Your task to perform on an android device: Empty the shopping cart on bestbuy.com. Add lg ultragear to the cart on bestbuy.com Image 0: 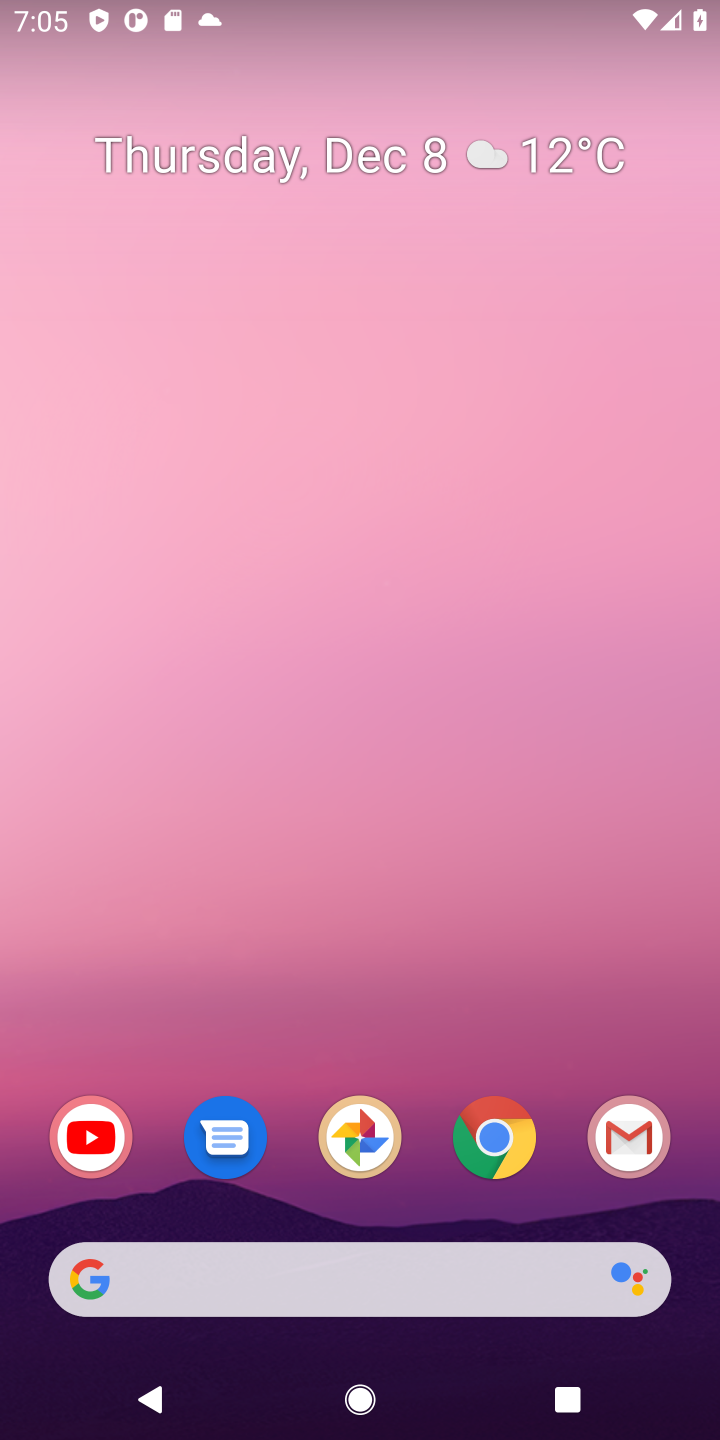
Step 0: click (513, 1140)
Your task to perform on an android device: Empty the shopping cart on bestbuy.com. Add lg ultragear to the cart on bestbuy.com Image 1: 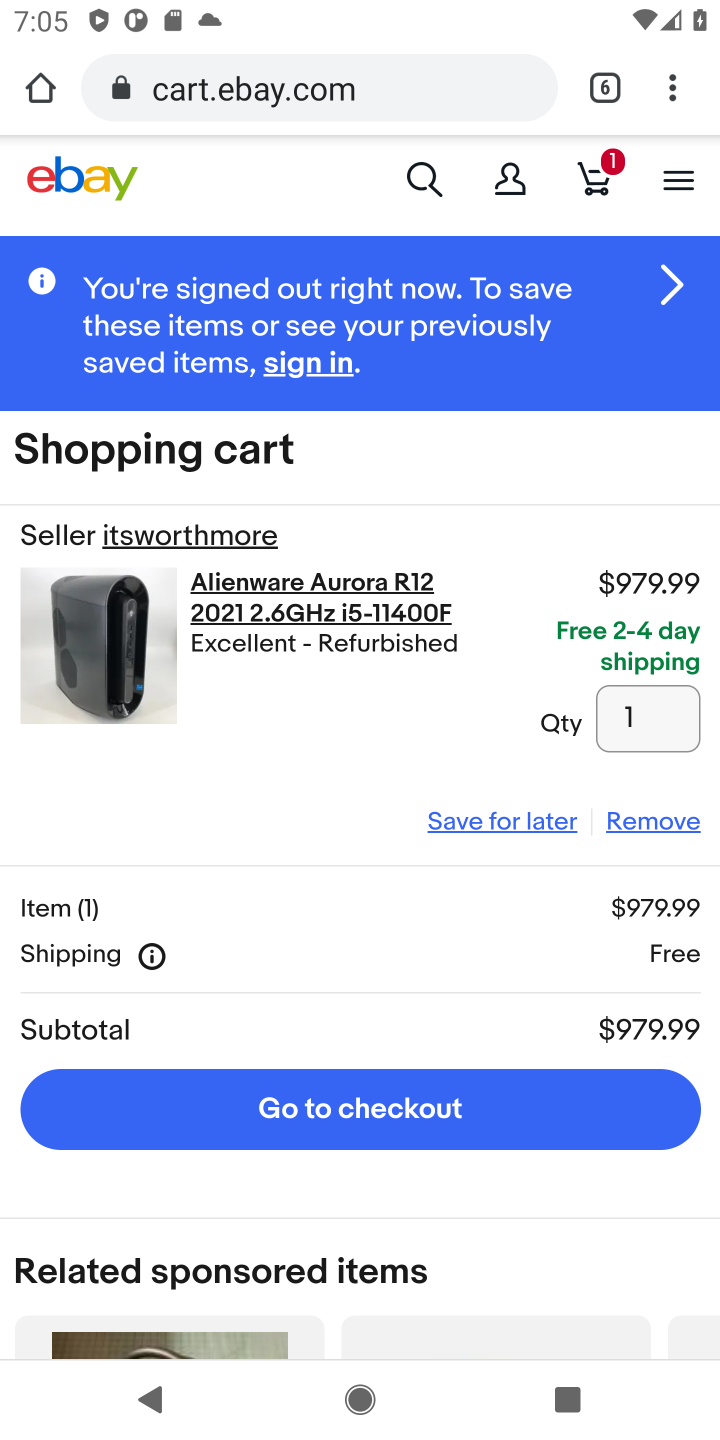
Step 1: click (599, 91)
Your task to perform on an android device: Empty the shopping cart on bestbuy.com. Add lg ultragear to the cart on bestbuy.com Image 2: 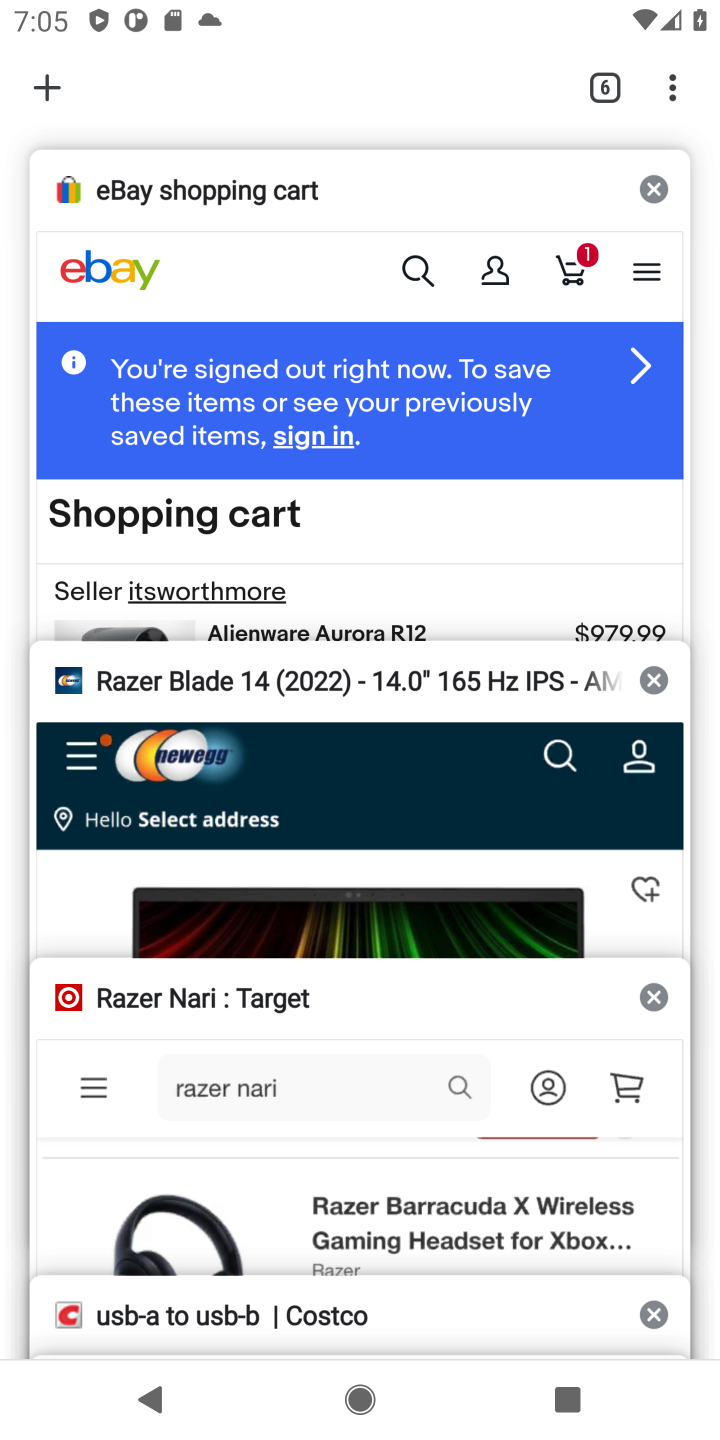
Step 2: drag from (221, 1310) to (294, 942)
Your task to perform on an android device: Empty the shopping cart on bestbuy.com. Add lg ultragear to the cart on bestbuy.com Image 3: 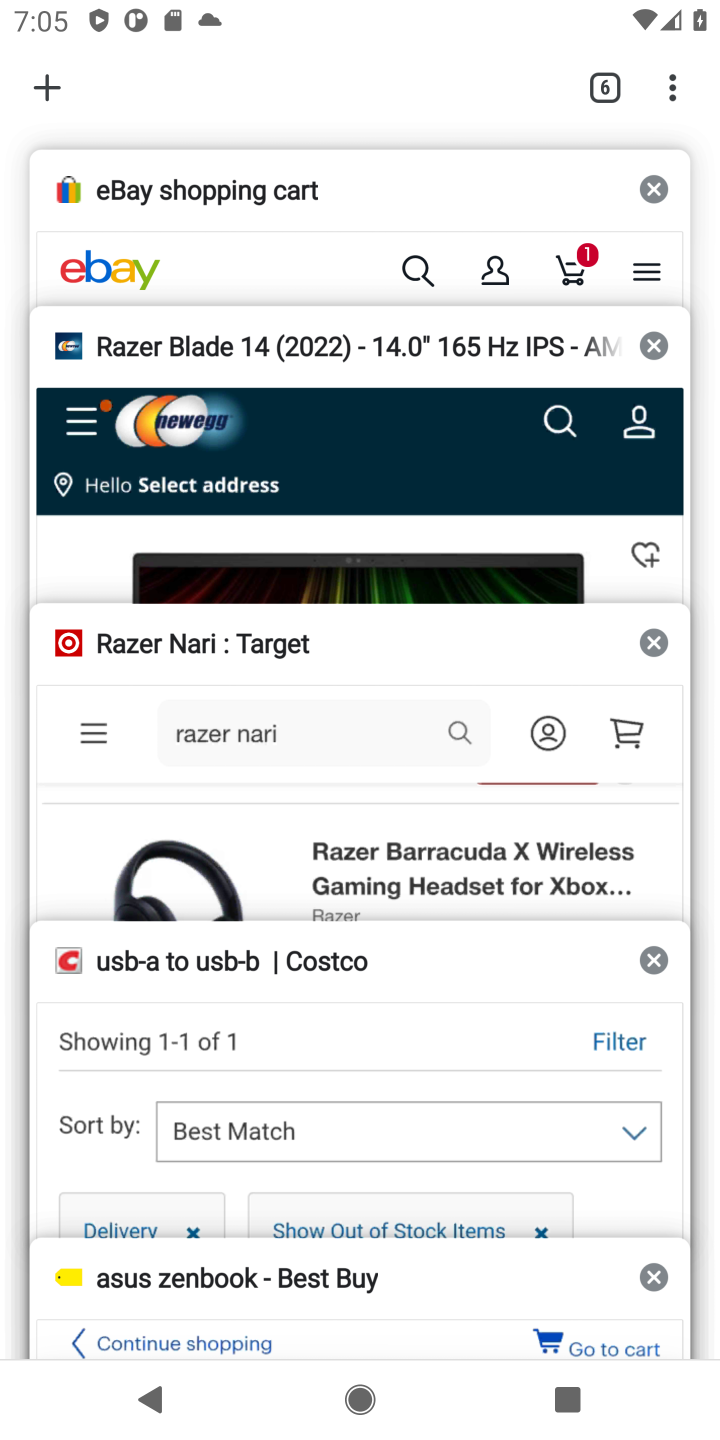
Step 3: click (206, 1273)
Your task to perform on an android device: Empty the shopping cart on bestbuy.com. Add lg ultragear to the cart on bestbuy.com Image 4: 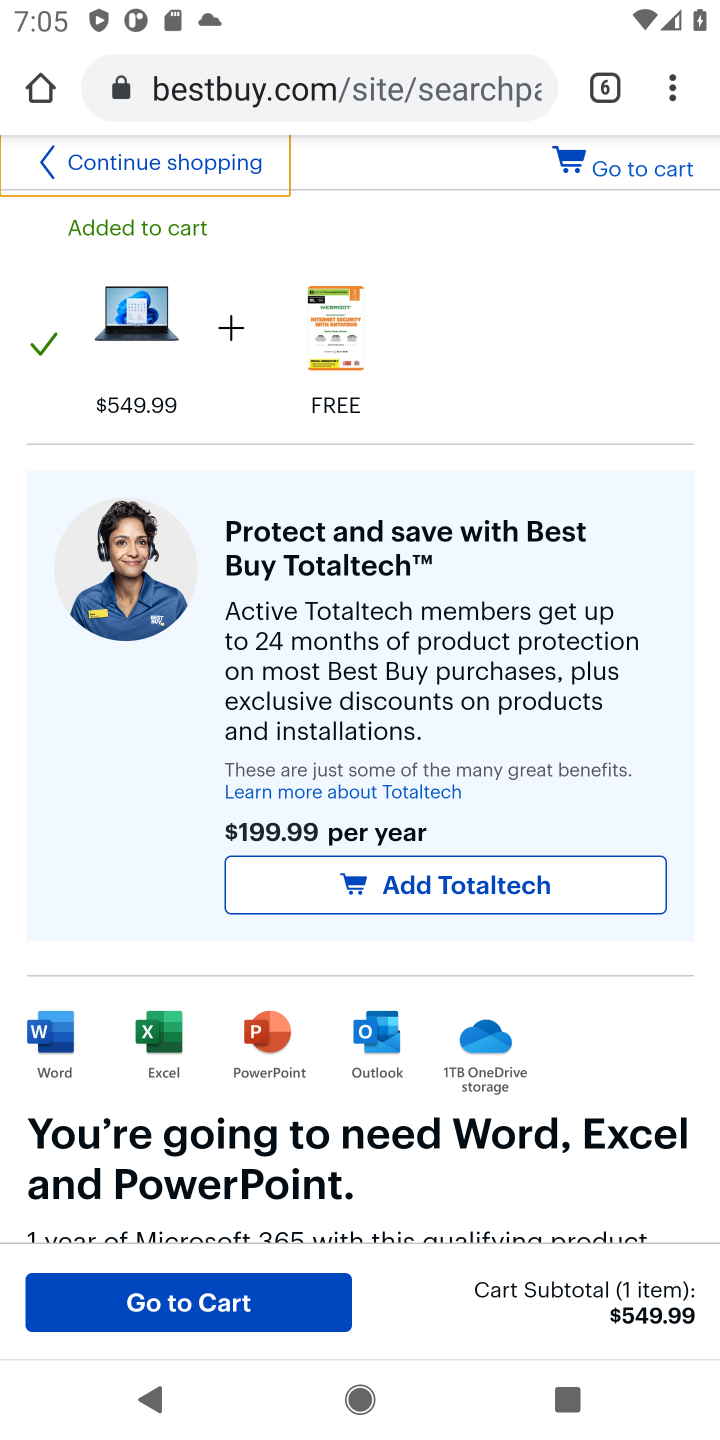
Step 4: click (124, 161)
Your task to perform on an android device: Empty the shopping cart on bestbuy.com. Add lg ultragear to the cart on bestbuy.com Image 5: 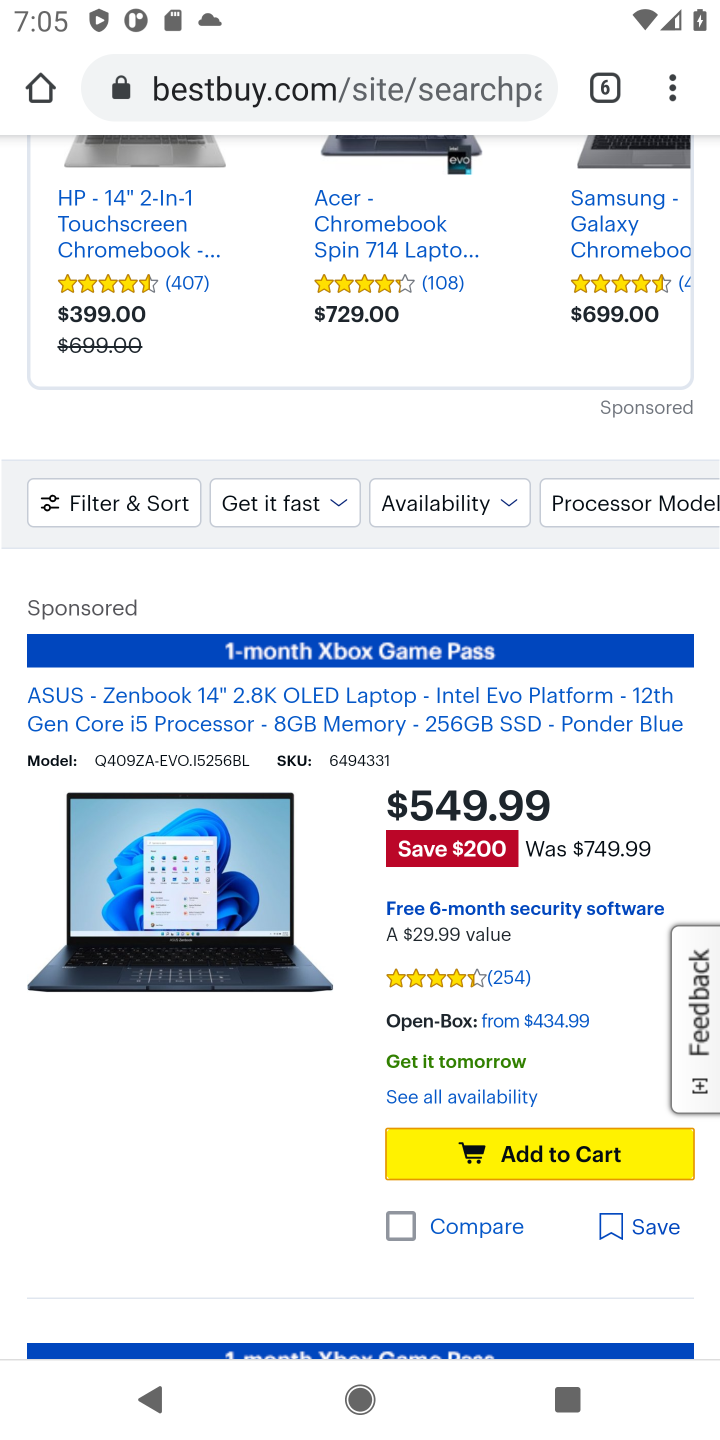
Step 5: drag from (477, 293) to (317, 818)
Your task to perform on an android device: Empty the shopping cart on bestbuy.com. Add lg ultragear to the cart on bestbuy.com Image 6: 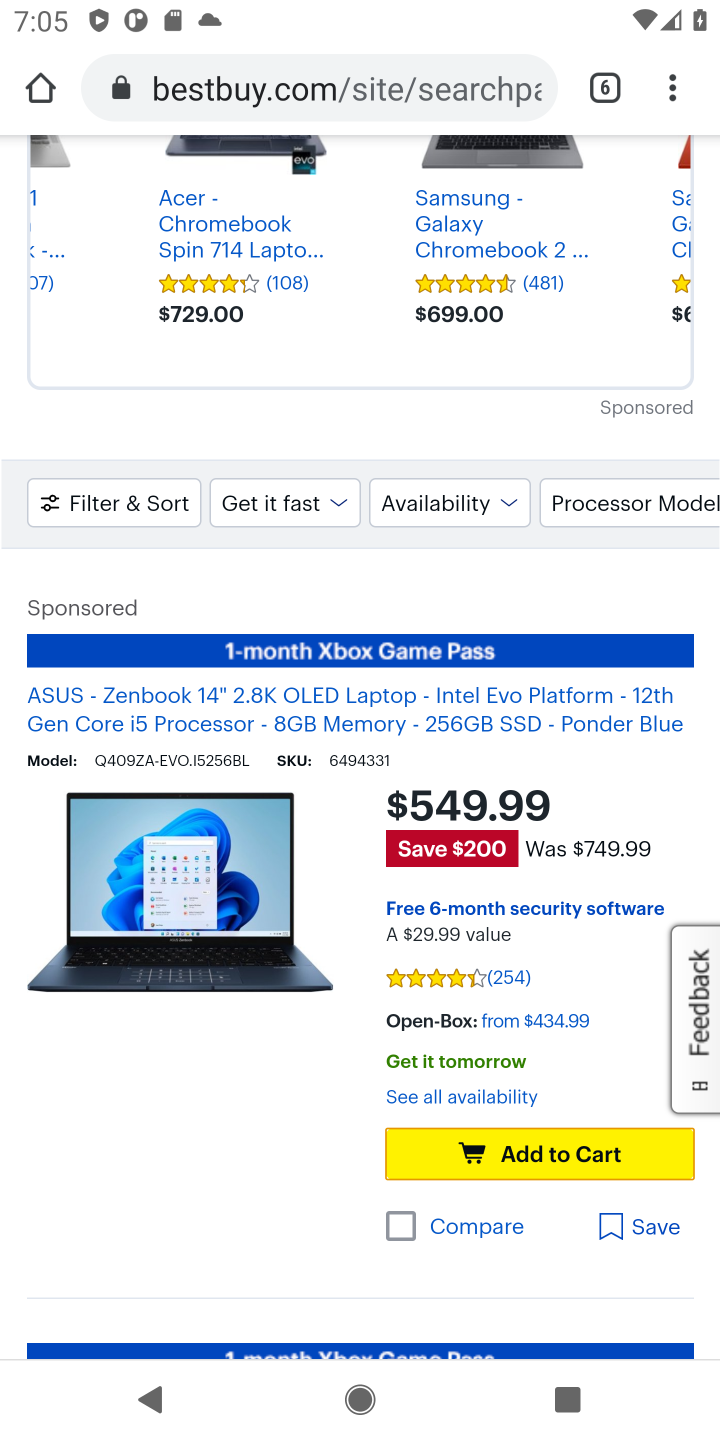
Step 6: drag from (359, 223) to (269, 1066)
Your task to perform on an android device: Empty the shopping cart on bestbuy.com. Add lg ultragear to the cart on bestbuy.com Image 7: 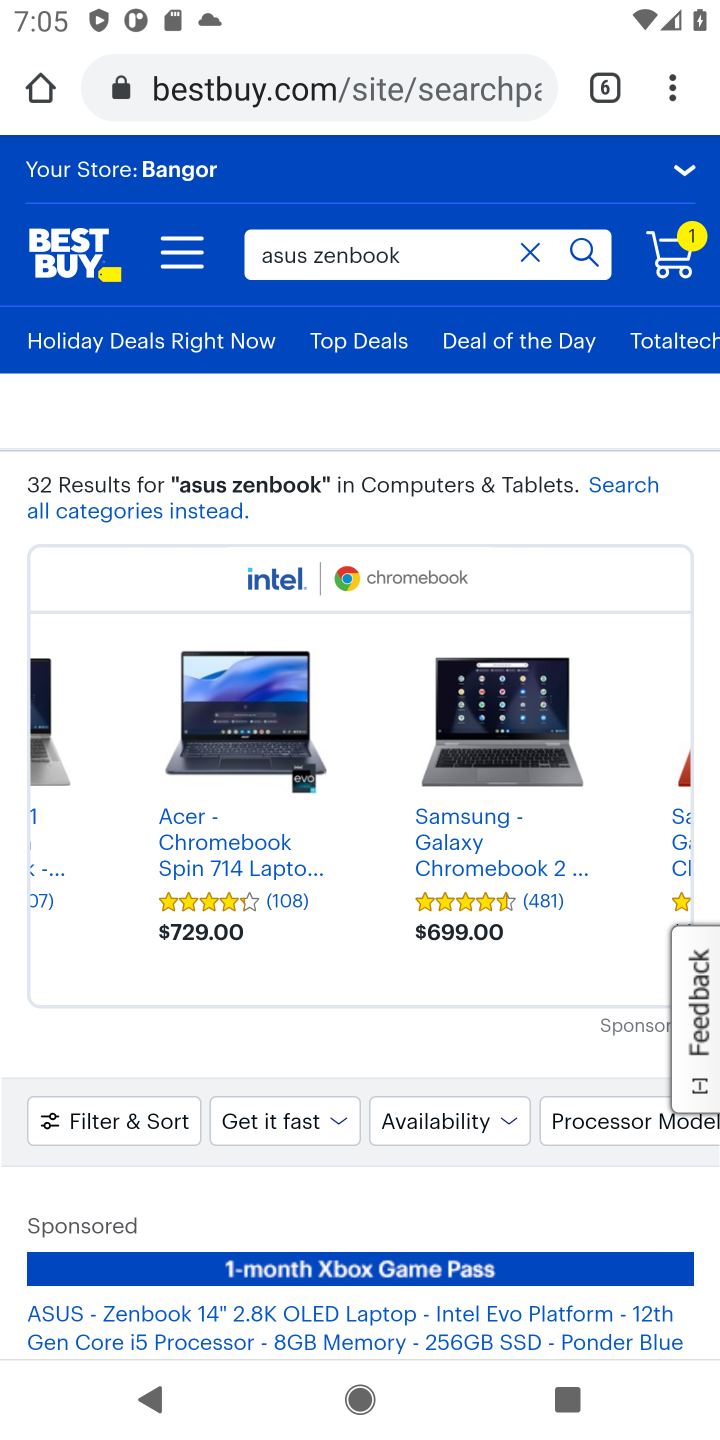
Step 7: click (687, 245)
Your task to perform on an android device: Empty the shopping cart on bestbuy.com. Add lg ultragear to the cart on bestbuy.com Image 8: 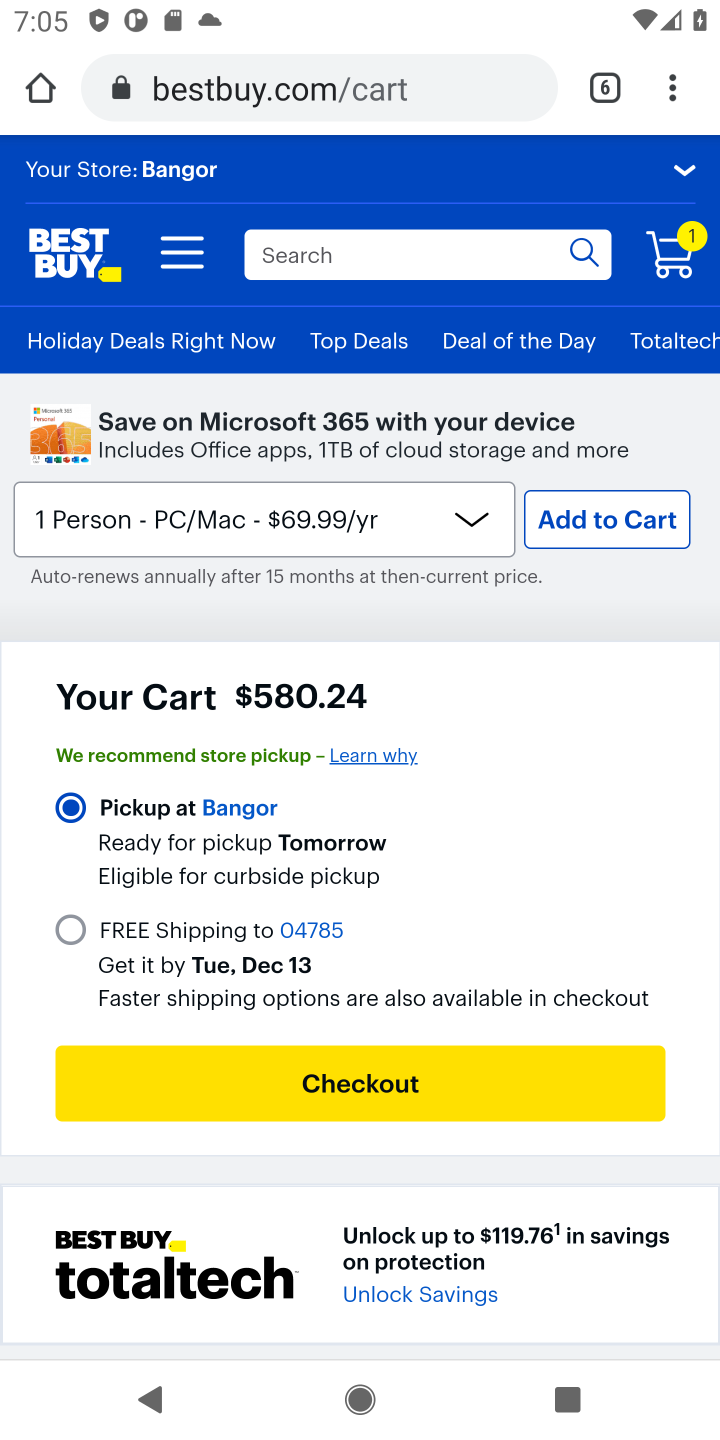
Step 8: drag from (439, 912) to (531, 478)
Your task to perform on an android device: Empty the shopping cart on bestbuy.com. Add lg ultragear to the cart on bestbuy.com Image 9: 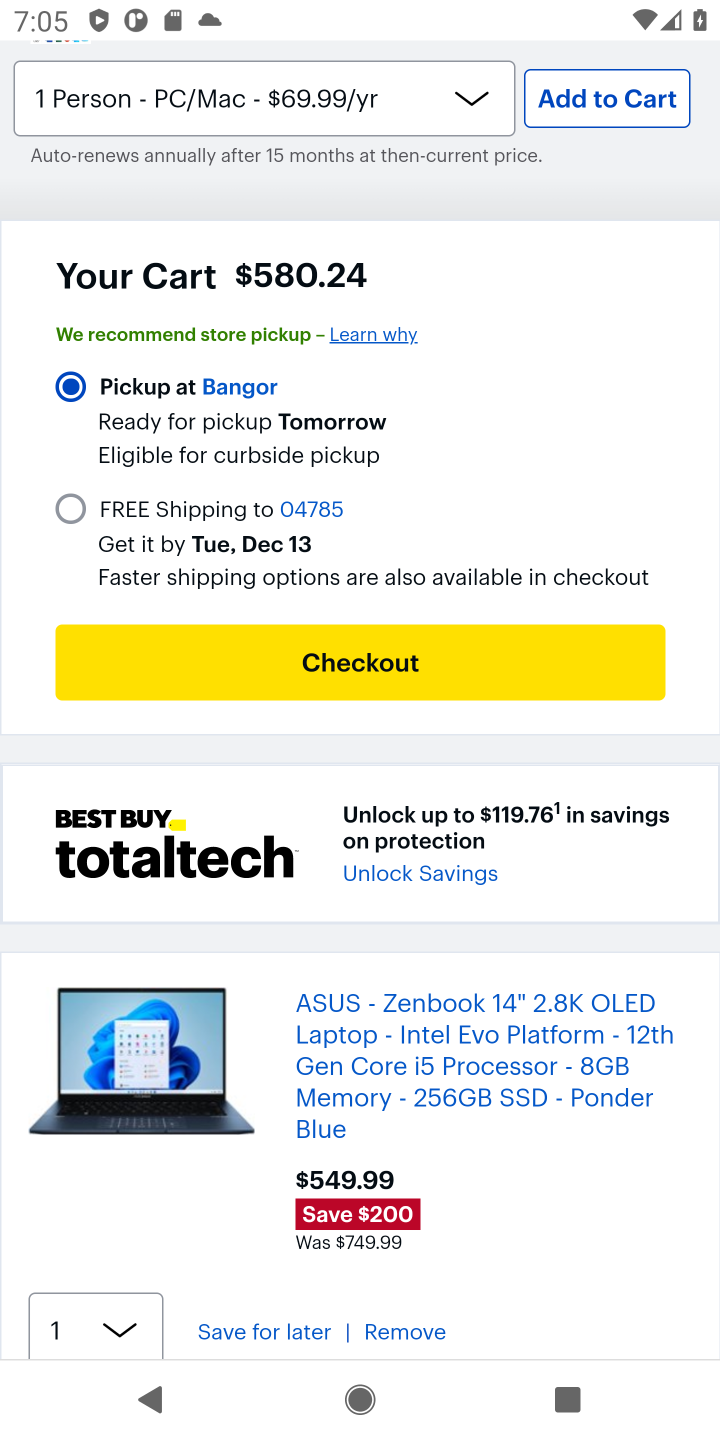
Step 9: click (378, 1317)
Your task to perform on an android device: Empty the shopping cart on bestbuy.com. Add lg ultragear to the cart on bestbuy.com Image 10: 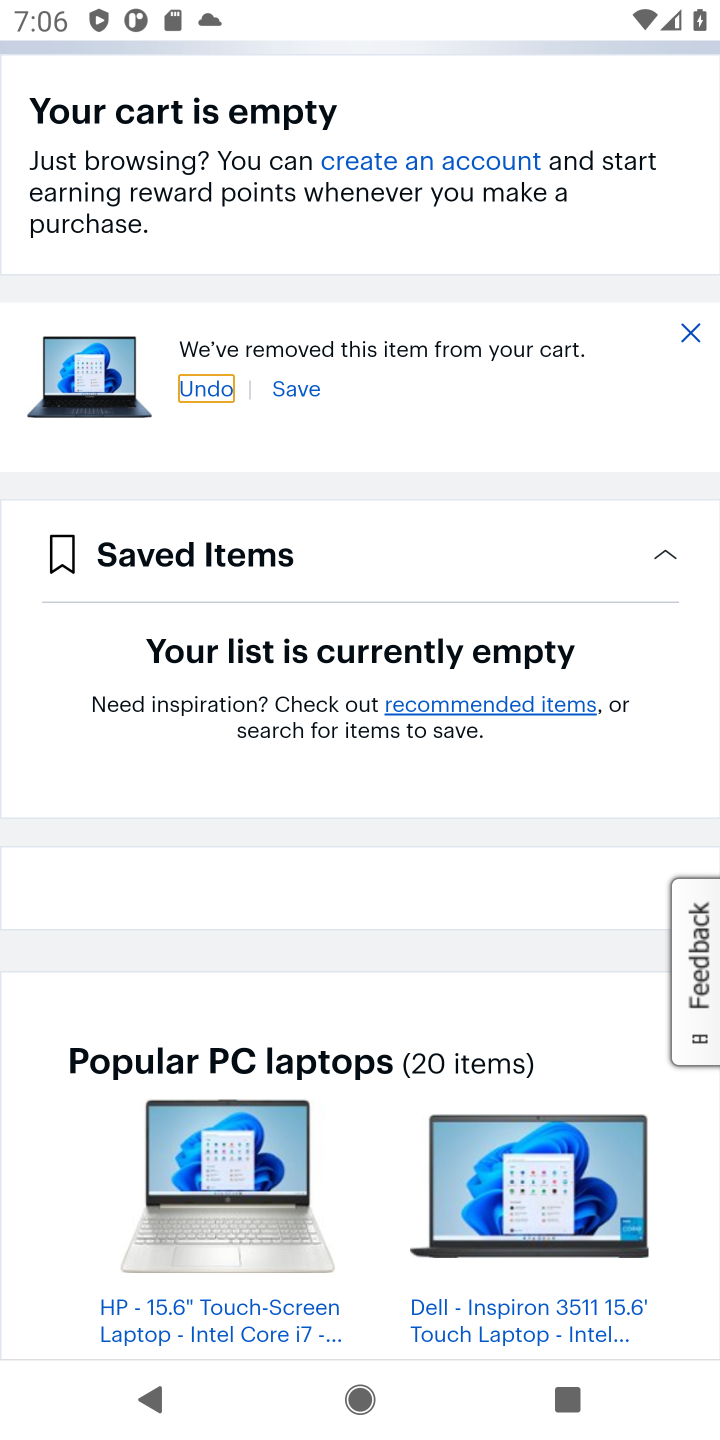
Step 10: drag from (423, 450) to (391, 1132)
Your task to perform on an android device: Empty the shopping cart on bestbuy.com. Add lg ultragear to the cart on bestbuy.com Image 11: 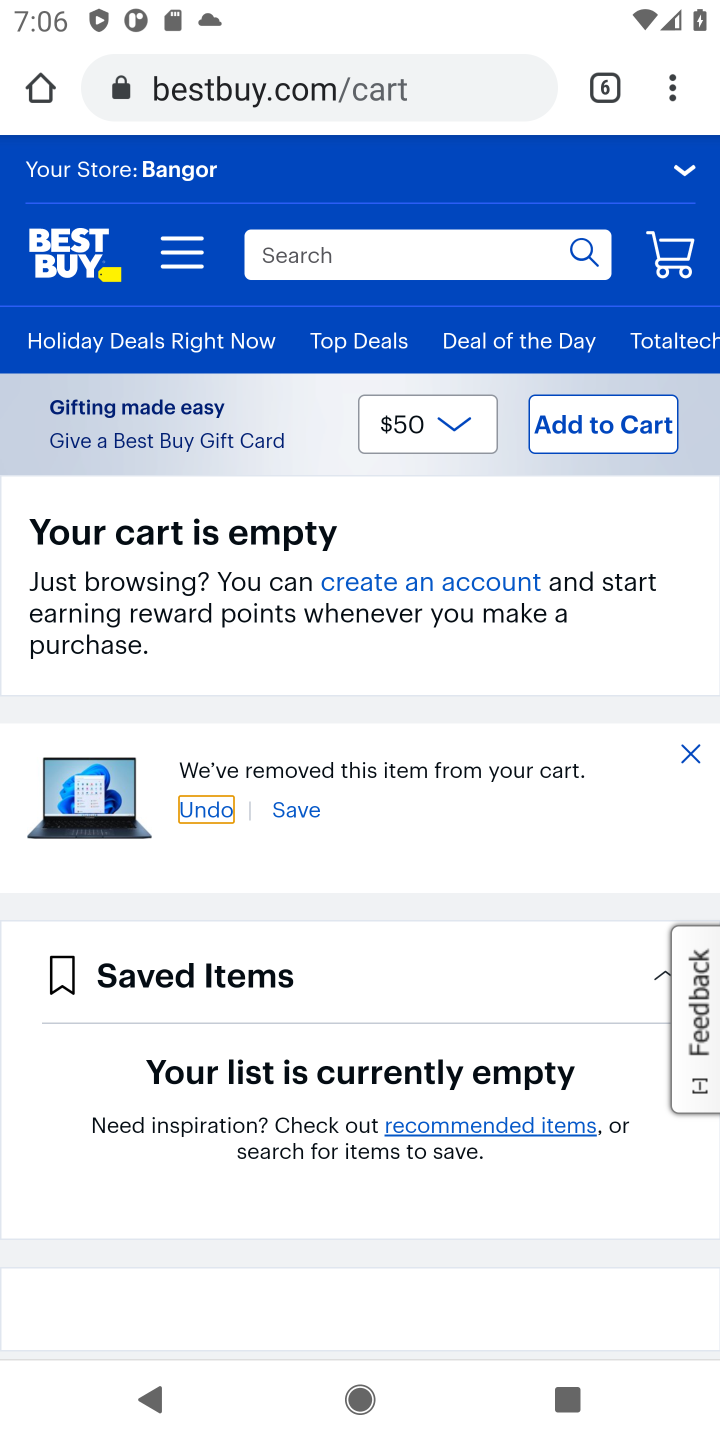
Step 11: click (307, 257)
Your task to perform on an android device: Empty the shopping cart on bestbuy.com. Add lg ultragear to the cart on bestbuy.com Image 12: 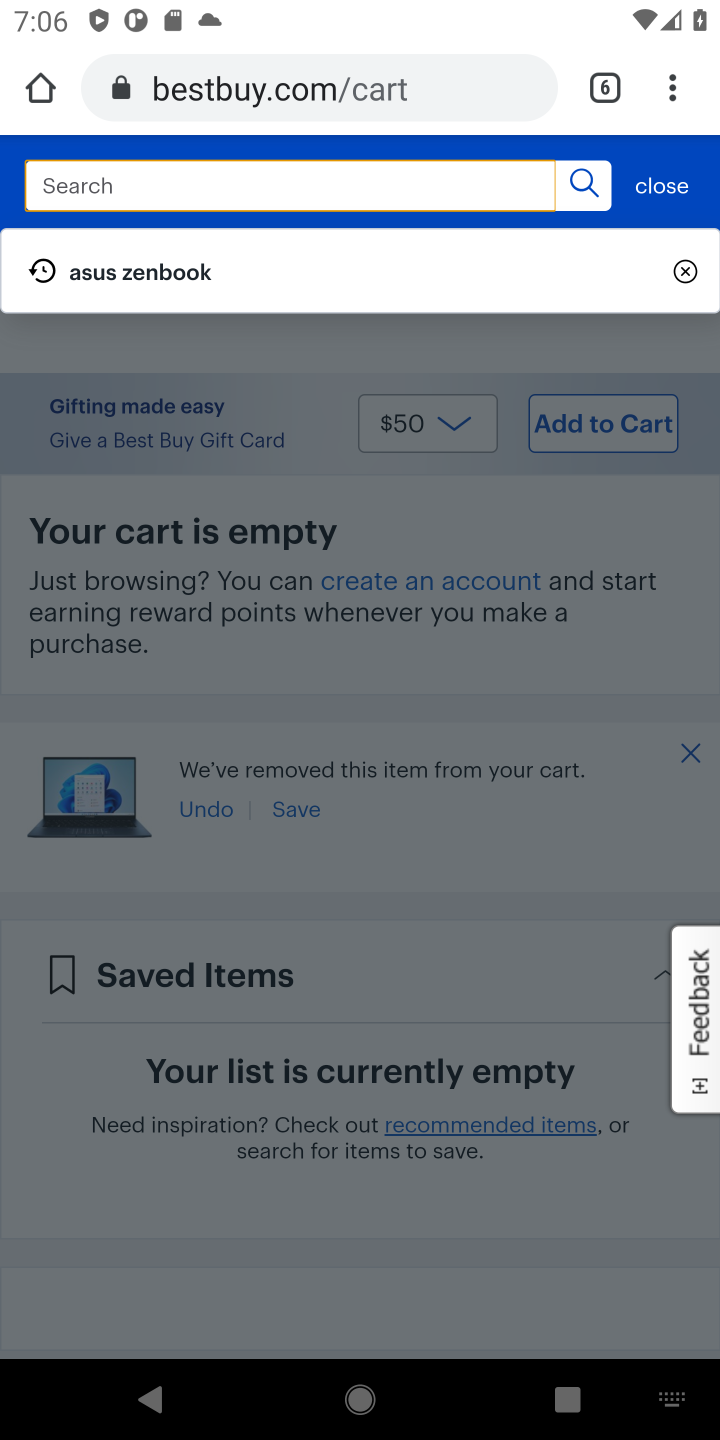
Step 12: type "lg ultragear"
Your task to perform on an android device: Empty the shopping cart on bestbuy.com. Add lg ultragear to the cart on bestbuy.com Image 13: 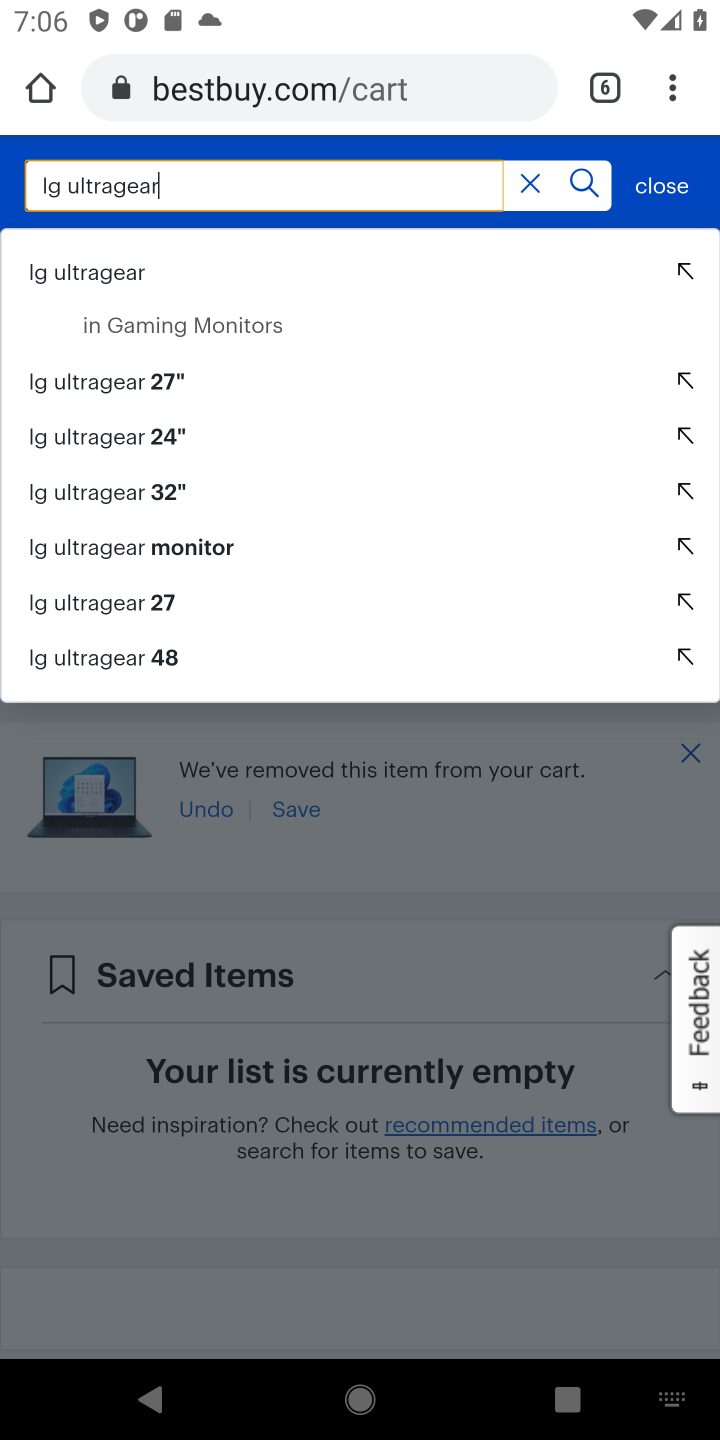
Step 13: click (41, 274)
Your task to perform on an android device: Empty the shopping cart on bestbuy.com. Add lg ultragear to the cart on bestbuy.com Image 14: 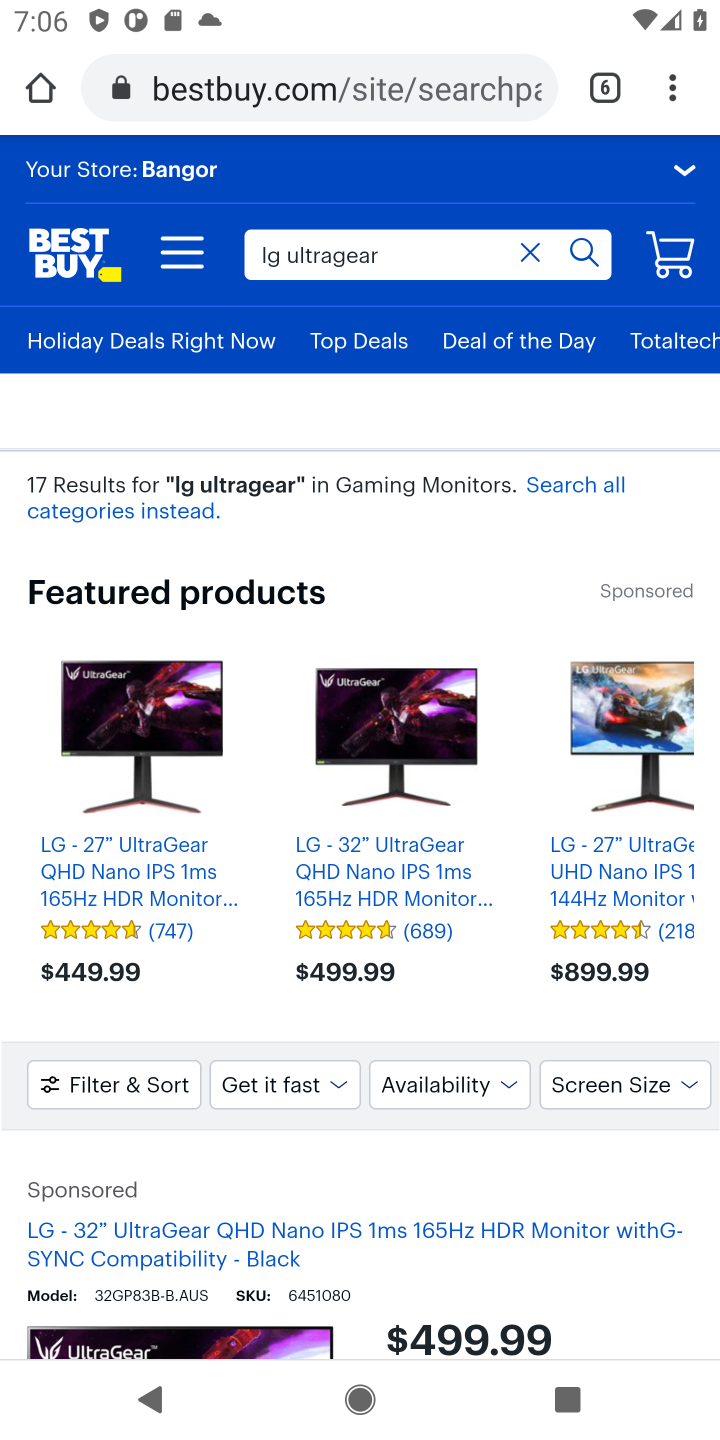
Step 14: drag from (386, 1281) to (545, 774)
Your task to perform on an android device: Empty the shopping cart on bestbuy.com. Add lg ultragear to the cart on bestbuy.com Image 15: 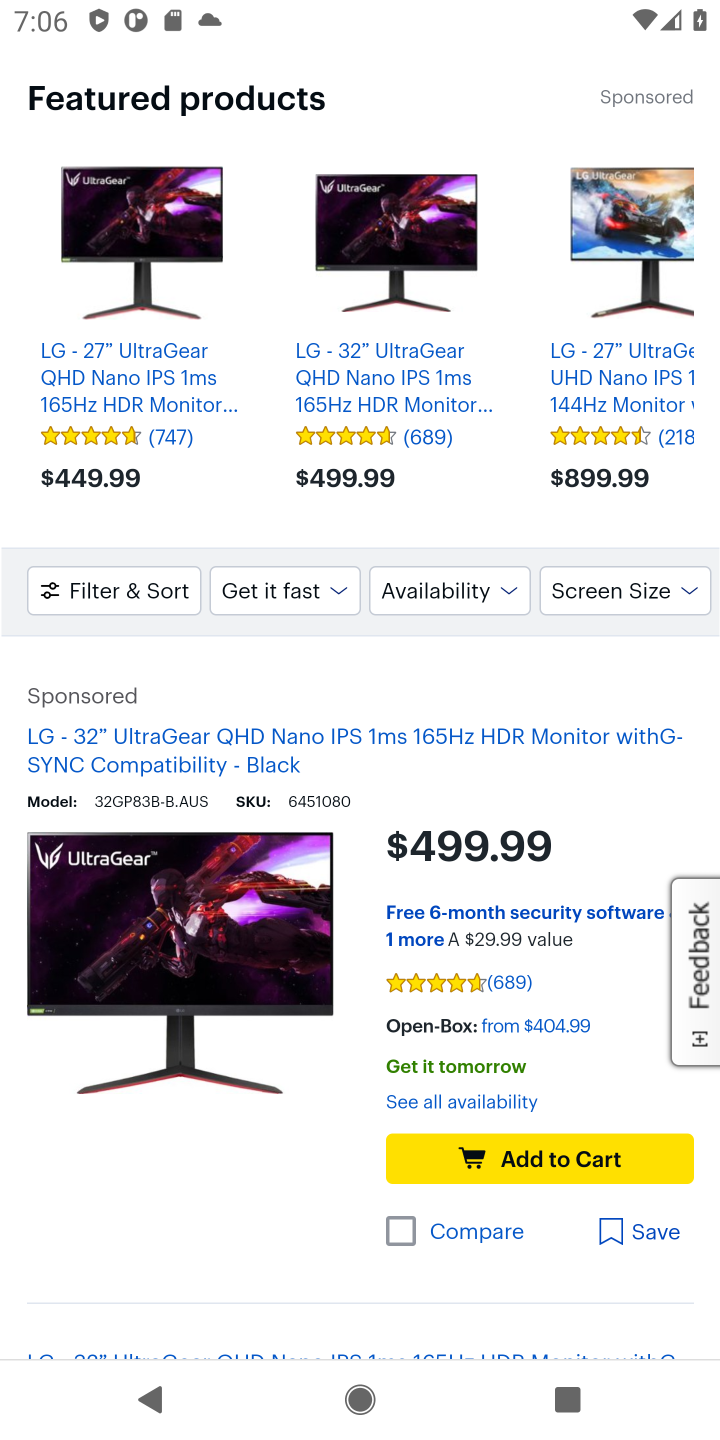
Step 15: click (567, 1159)
Your task to perform on an android device: Empty the shopping cart on bestbuy.com. Add lg ultragear to the cart on bestbuy.com Image 16: 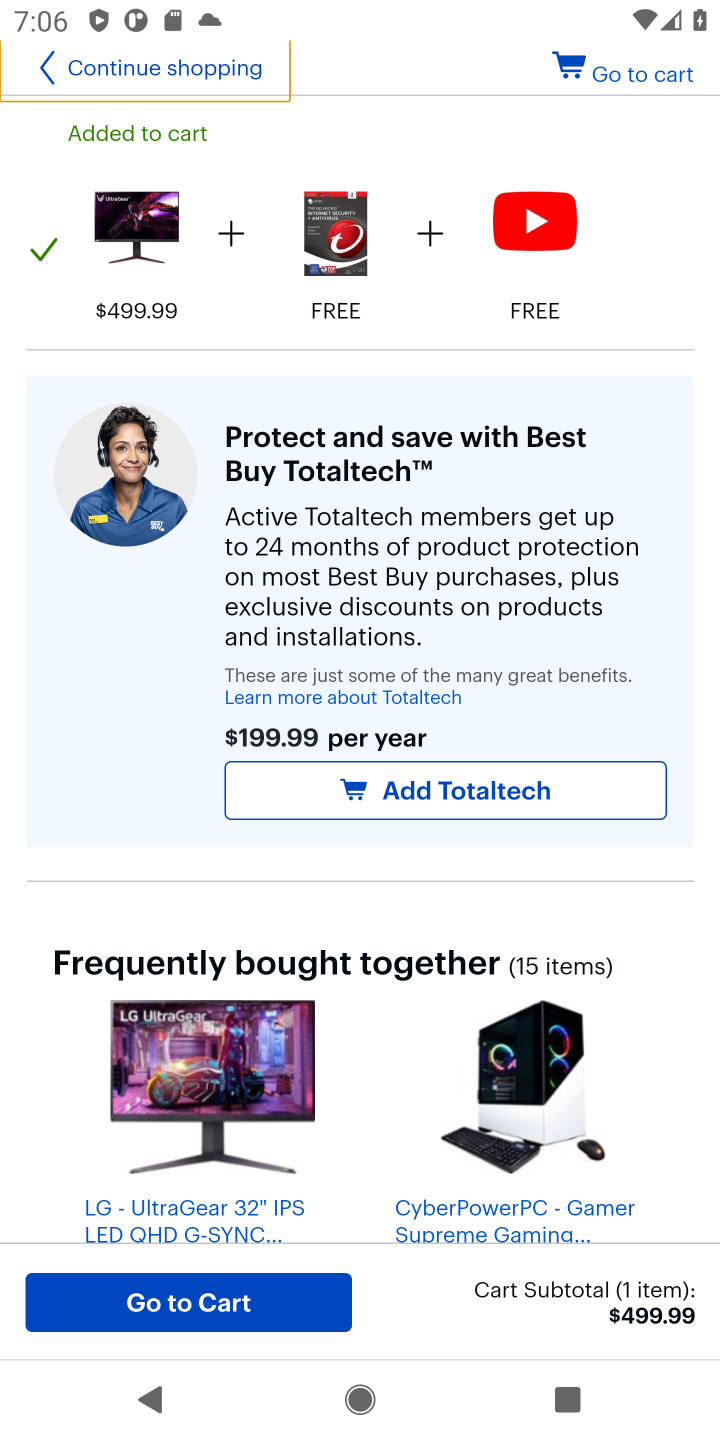
Step 16: task complete